Your task to perform on an android device: move an email to a new category in the gmail app Image 0: 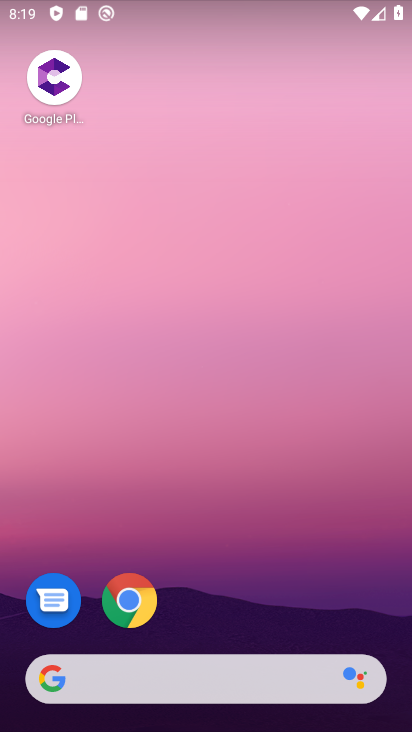
Step 0: drag from (229, 610) to (224, 54)
Your task to perform on an android device: move an email to a new category in the gmail app Image 1: 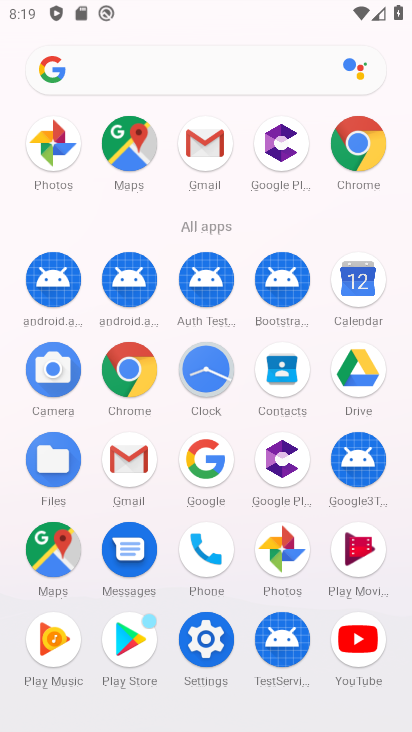
Step 1: click (202, 157)
Your task to perform on an android device: move an email to a new category in the gmail app Image 2: 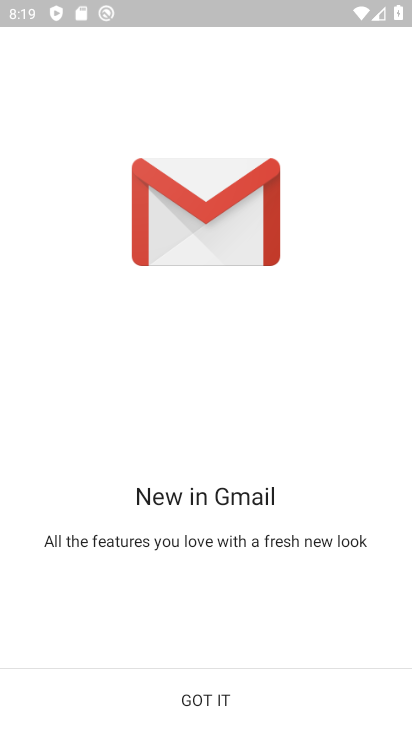
Step 2: click (212, 706)
Your task to perform on an android device: move an email to a new category in the gmail app Image 3: 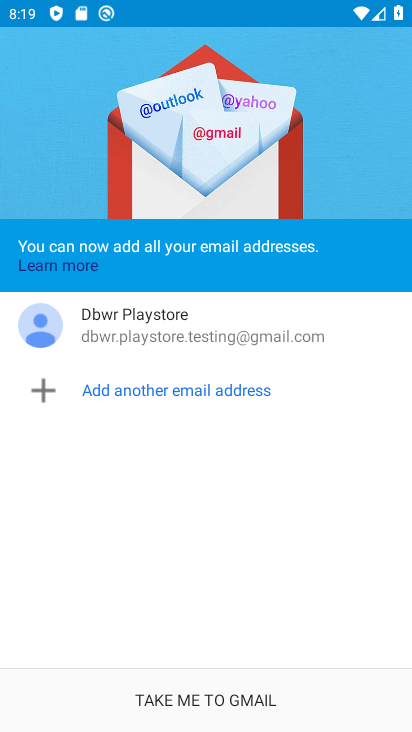
Step 3: click (185, 714)
Your task to perform on an android device: move an email to a new category in the gmail app Image 4: 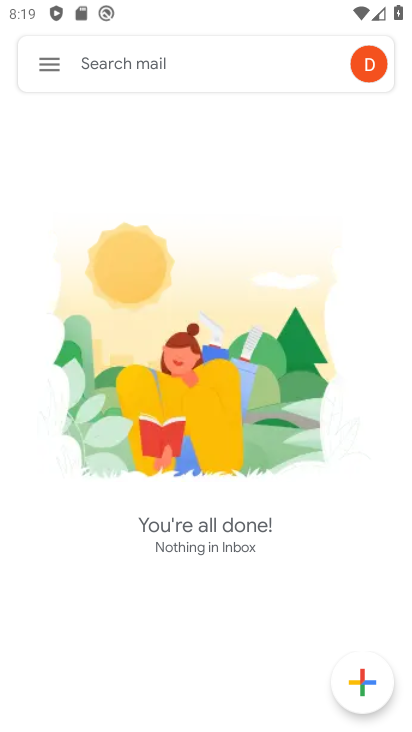
Step 4: click (57, 68)
Your task to perform on an android device: move an email to a new category in the gmail app Image 5: 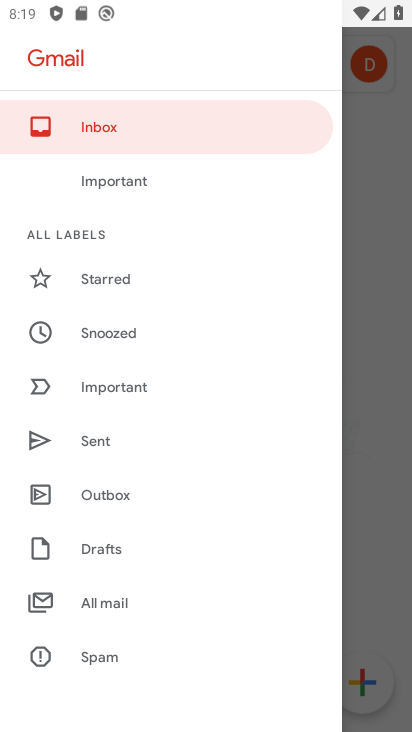
Step 5: drag from (145, 628) to (200, 308)
Your task to perform on an android device: move an email to a new category in the gmail app Image 6: 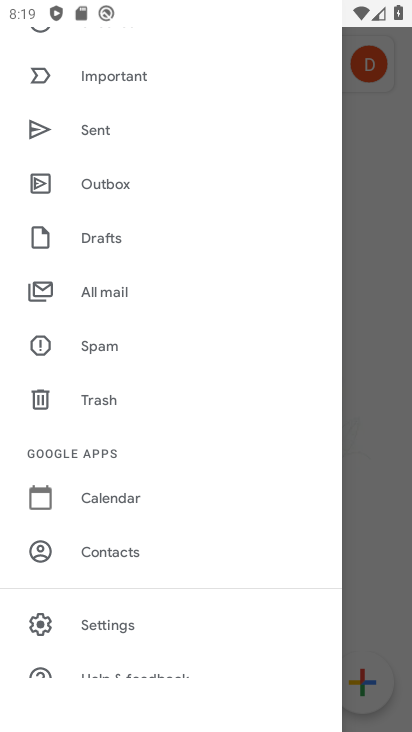
Step 6: click (122, 294)
Your task to perform on an android device: move an email to a new category in the gmail app Image 7: 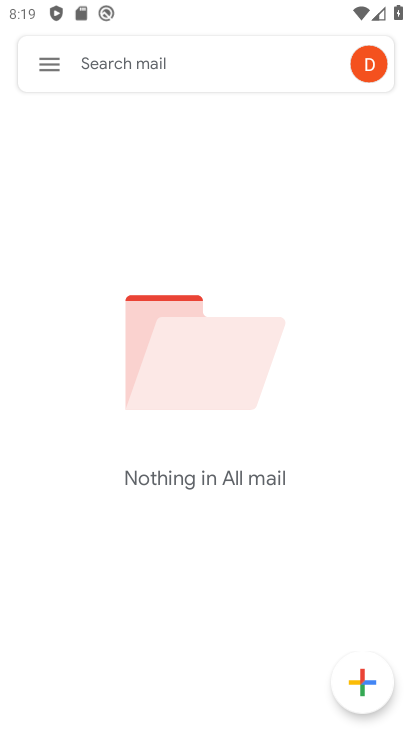
Step 7: task complete